Your task to perform on an android device: Open Chrome and go to settings Image 0: 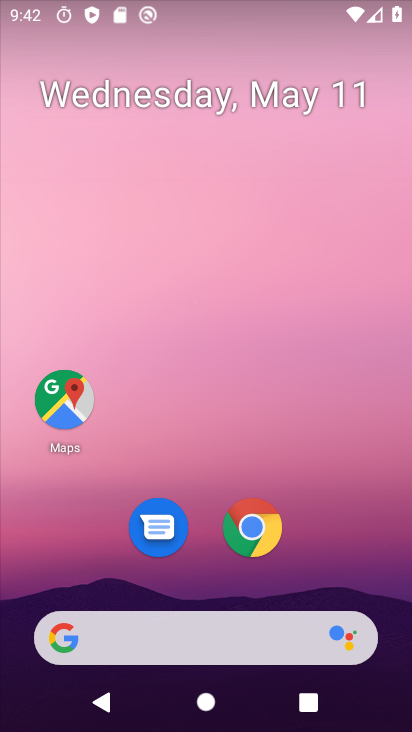
Step 0: drag from (244, 648) to (280, 355)
Your task to perform on an android device: Open Chrome and go to settings Image 1: 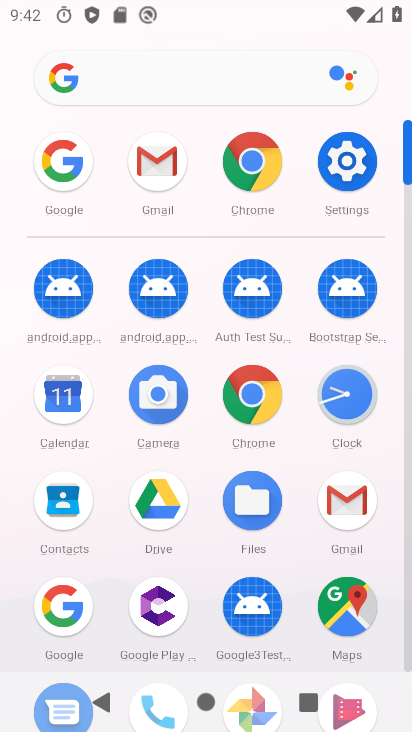
Step 1: click (263, 202)
Your task to perform on an android device: Open Chrome and go to settings Image 2: 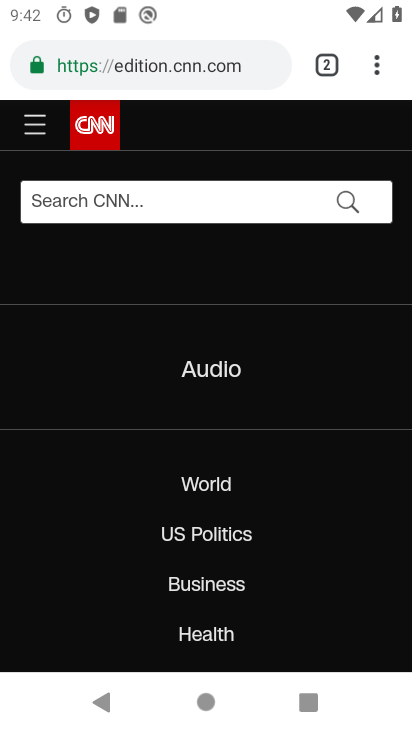
Step 2: click (381, 73)
Your task to perform on an android device: Open Chrome and go to settings Image 3: 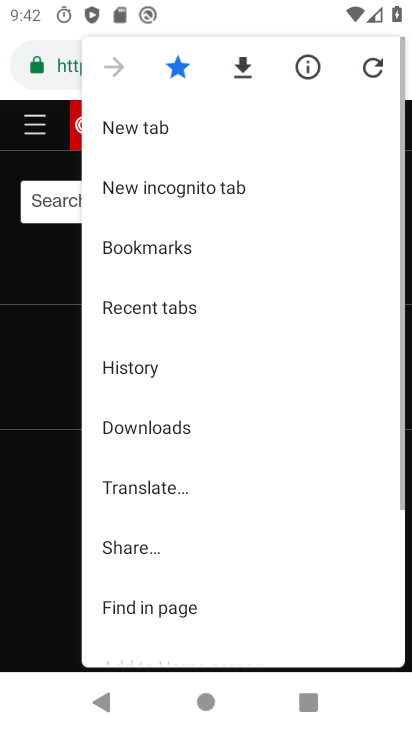
Step 3: drag from (243, 545) to (275, 246)
Your task to perform on an android device: Open Chrome and go to settings Image 4: 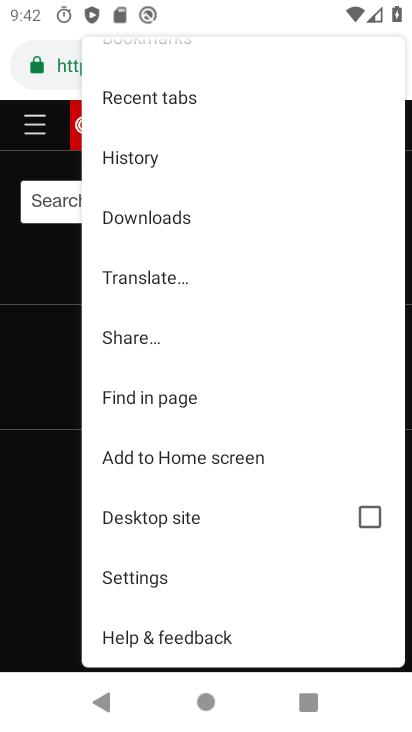
Step 4: click (159, 571)
Your task to perform on an android device: Open Chrome and go to settings Image 5: 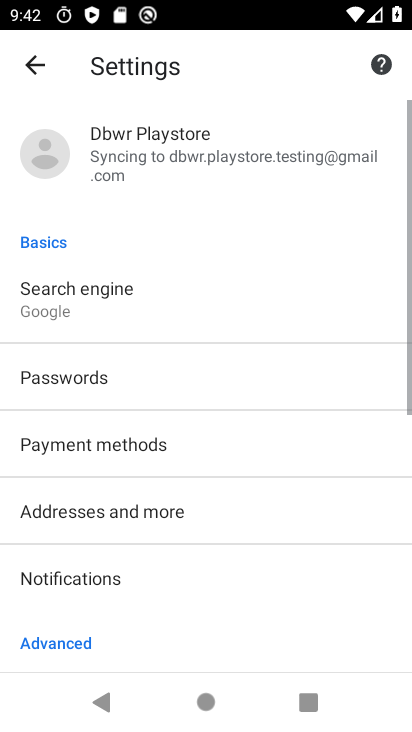
Step 5: task complete